Your task to perform on an android device: move a message to another label in the gmail app Image 0: 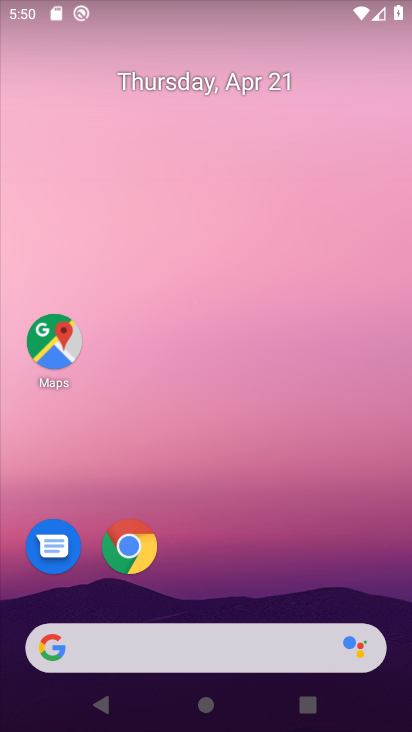
Step 0: drag from (276, 560) to (275, 122)
Your task to perform on an android device: move a message to another label in the gmail app Image 1: 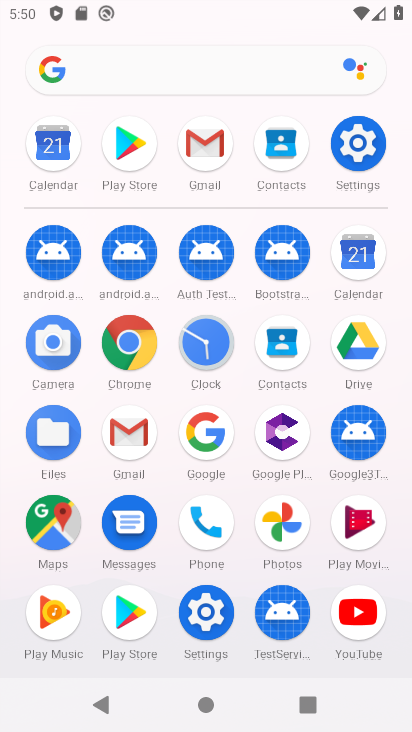
Step 1: click (123, 426)
Your task to perform on an android device: move a message to another label in the gmail app Image 2: 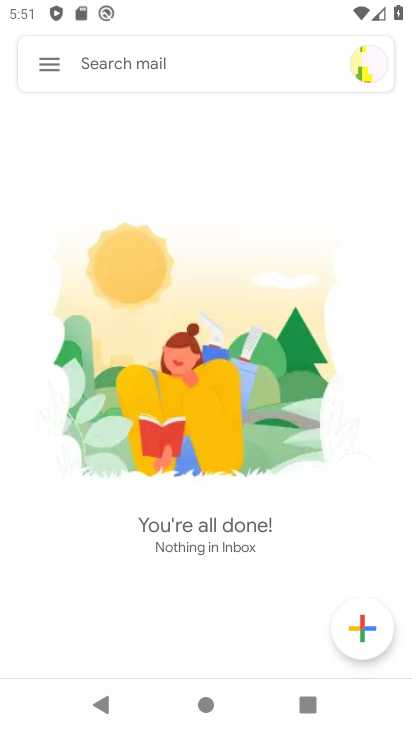
Step 2: click (54, 65)
Your task to perform on an android device: move a message to another label in the gmail app Image 3: 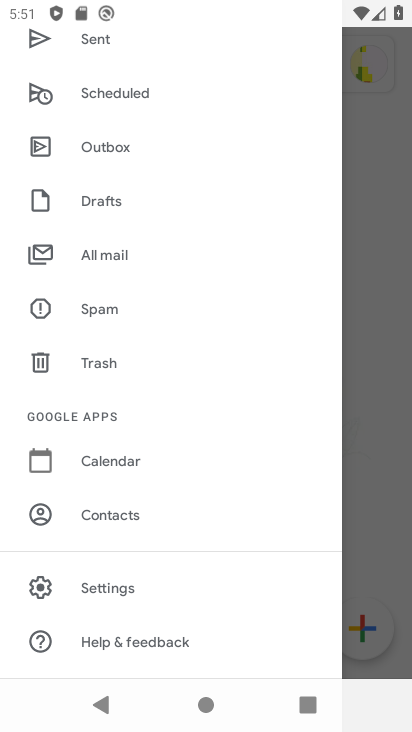
Step 3: drag from (162, 246) to (142, 601)
Your task to perform on an android device: move a message to another label in the gmail app Image 4: 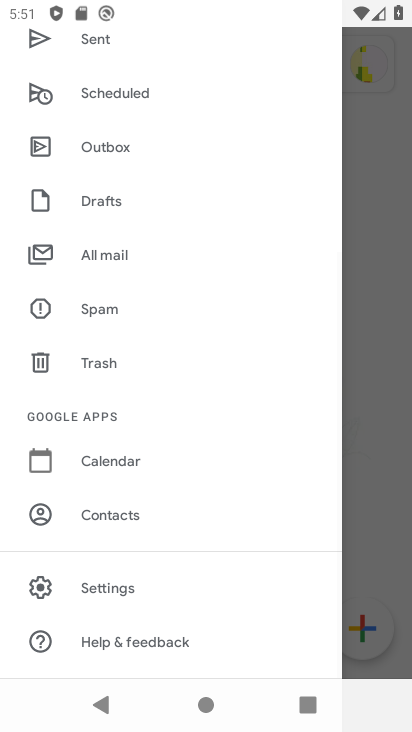
Step 4: drag from (137, 230) to (137, 543)
Your task to perform on an android device: move a message to another label in the gmail app Image 5: 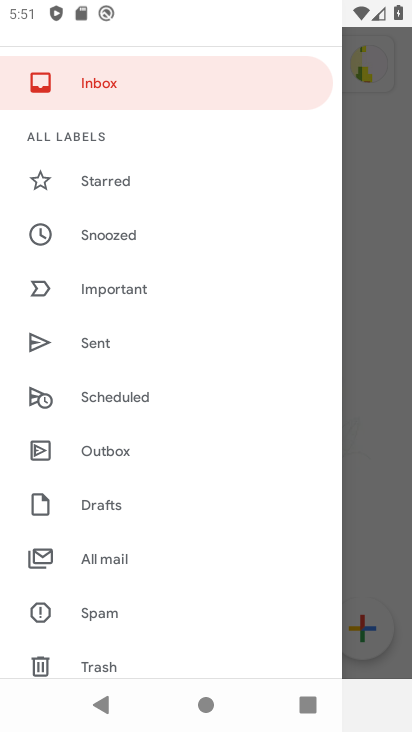
Step 5: click (115, 562)
Your task to perform on an android device: move a message to another label in the gmail app Image 6: 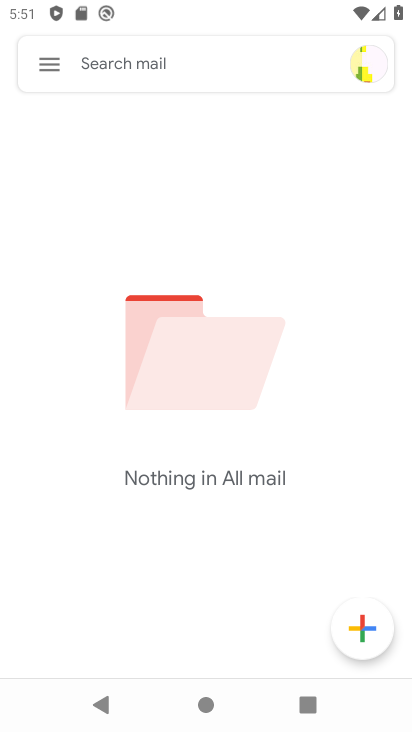
Step 6: task complete